Your task to perform on an android device: check data usage Image 0: 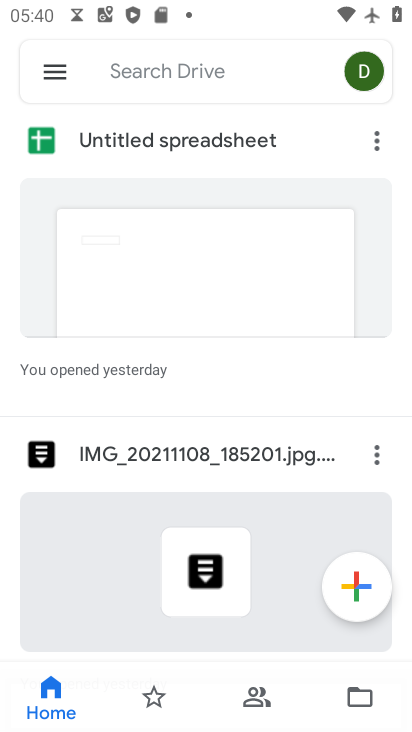
Step 0: press home button
Your task to perform on an android device: check data usage Image 1: 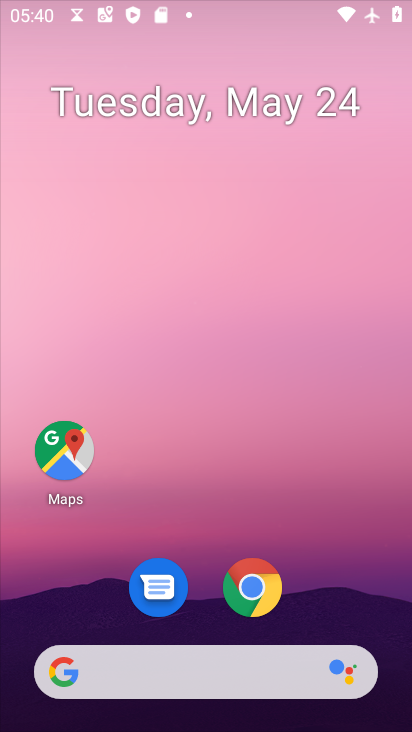
Step 1: drag from (320, 417) to (176, 5)
Your task to perform on an android device: check data usage Image 2: 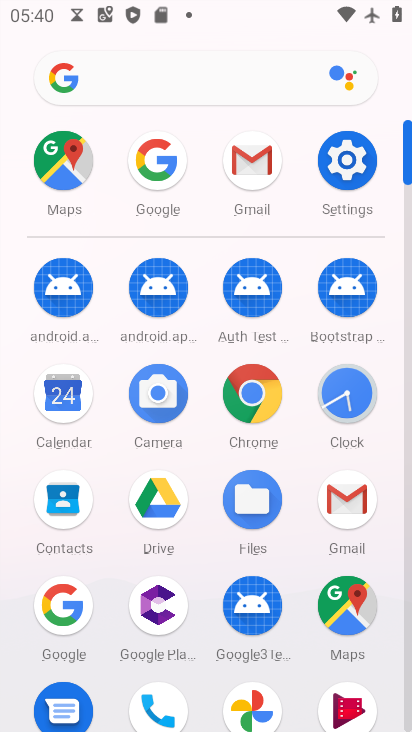
Step 2: click (347, 177)
Your task to perform on an android device: check data usage Image 3: 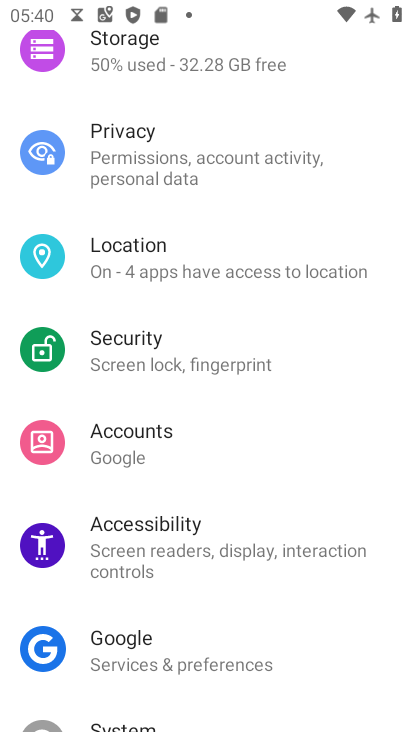
Step 3: drag from (236, 135) to (247, 724)
Your task to perform on an android device: check data usage Image 4: 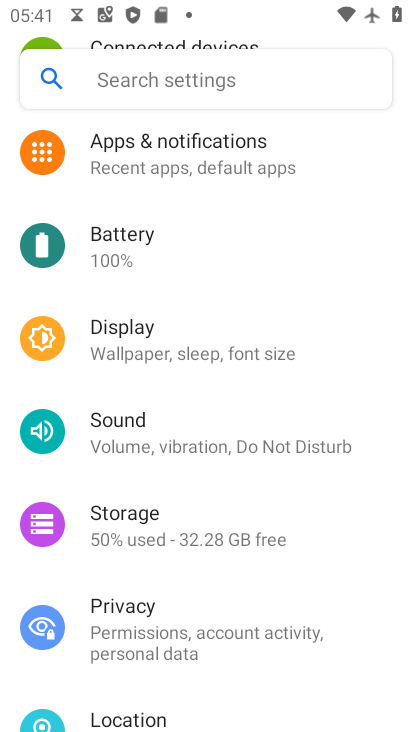
Step 4: drag from (213, 261) to (201, 714)
Your task to perform on an android device: check data usage Image 5: 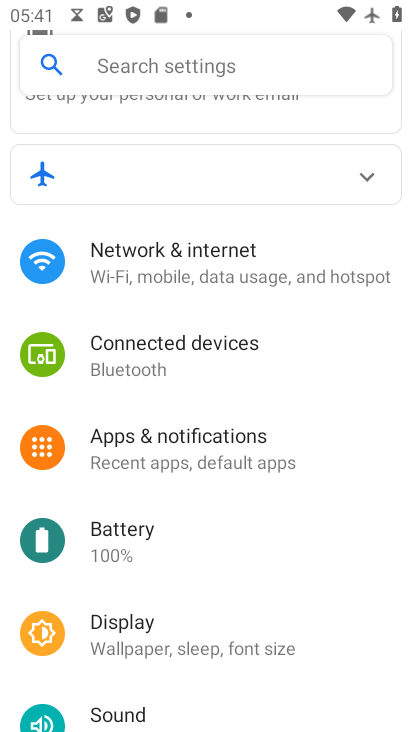
Step 5: click (198, 299)
Your task to perform on an android device: check data usage Image 6: 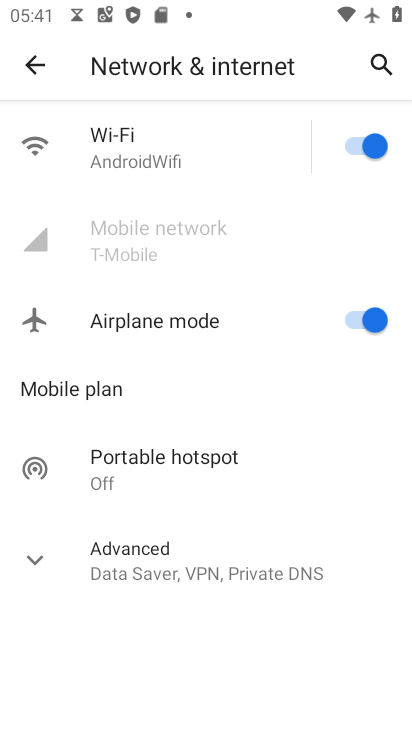
Step 6: task complete